Your task to perform on an android device: visit the assistant section in the google photos Image 0: 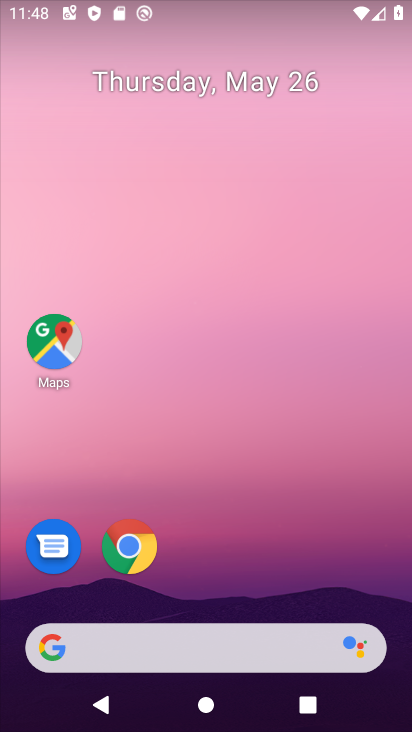
Step 0: drag from (324, 509) to (207, 84)
Your task to perform on an android device: visit the assistant section in the google photos Image 1: 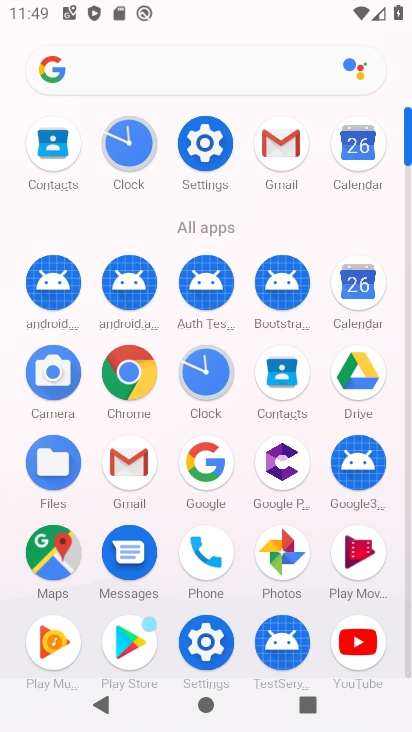
Step 1: click (277, 549)
Your task to perform on an android device: visit the assistant section in the google photos Image 2: 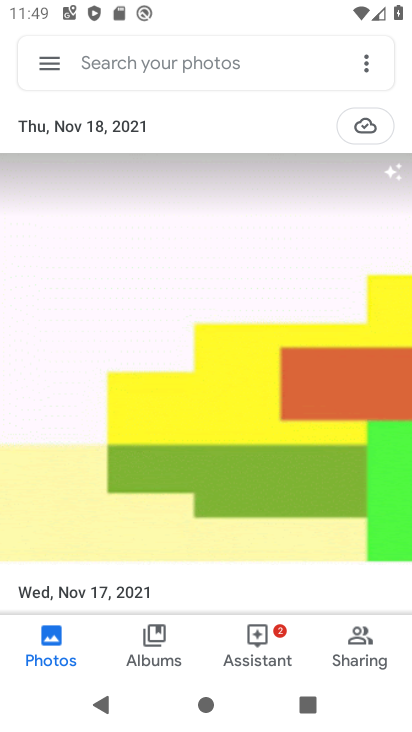
Step 2: click (257, 631)
Your task to perform on an android device: visit the assistant section in the google photos Image 3: 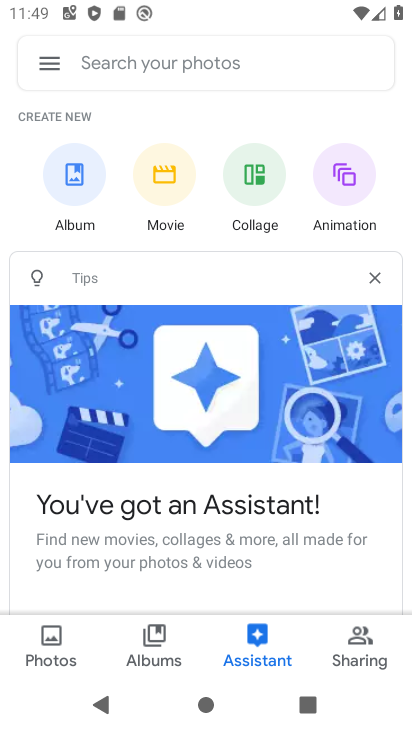
Step 3: task complete